Your task to perform on an android device: open wifi settings Image 0: 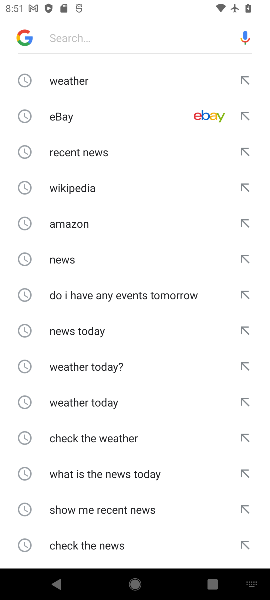
Step 0: press home button
Your task to perform on an android device: open wifi settings Image 1: 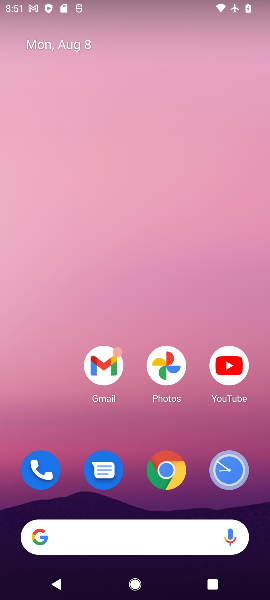
Step 1: drag from (171, 513) to (155, 292)
Your task to perform on an android device: open wifi settings Image 2: 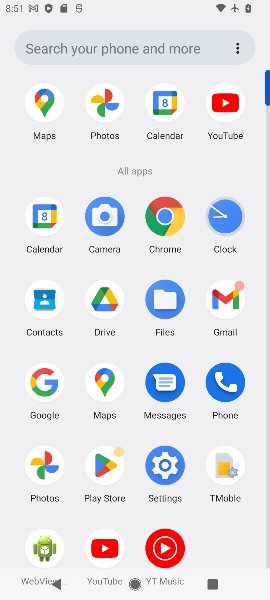
Step 2: click (164, 475)
Your task to perform on an android device: open wifi settings Image 3: 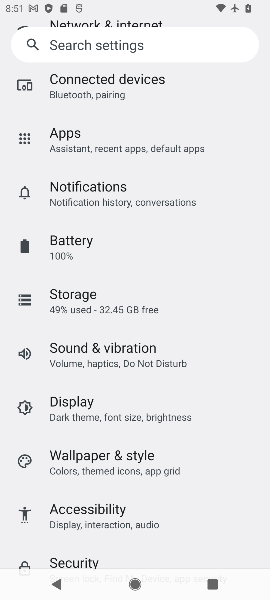
Step 3: drag from (82, 94) to (124, 415)
Your task to perform on an android device: open wifi settings Image 4: 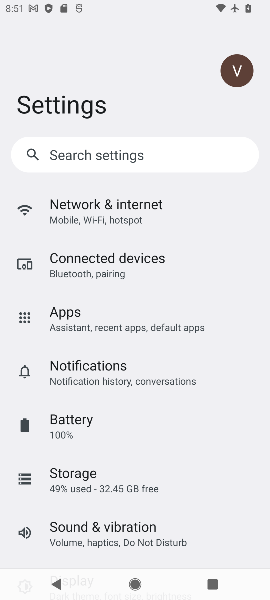
Step 4: click (83, 213)
Your task to perform on an android device: open wifi settings Image 5: 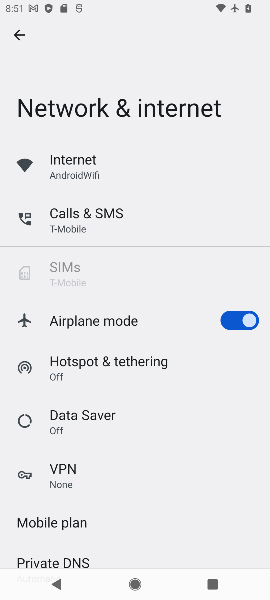
Step 5: click (76, 173)
Your task to perform on an android device: open wifi settings Image 6: 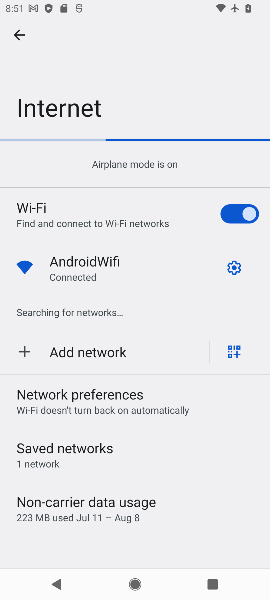
Step 6: click (234, 270)
Your task to perform on an android device: open wifi settings Image 7: 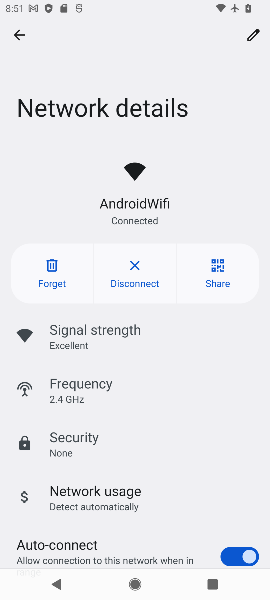
Step 7: task complete